Your task to perform on an android device: toggle wifi Image 0: 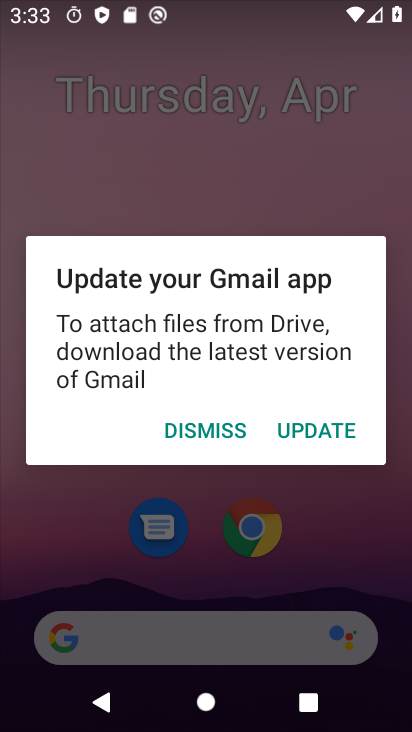
Step 0: press home button
Your task to perform on an android device: toggle wifi Image 1: 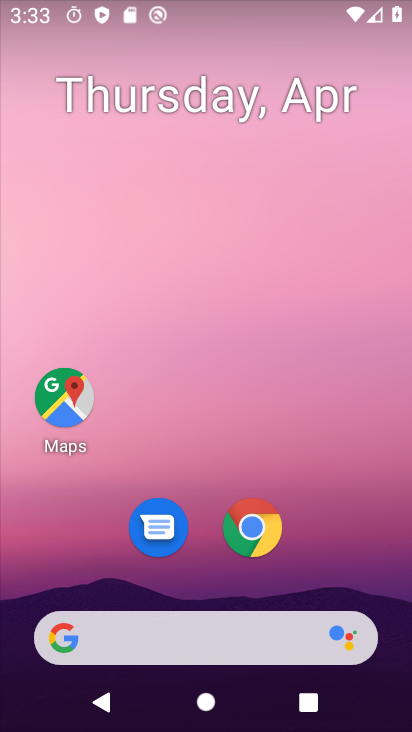
Step 1: drag from (274, 0) to (289, 461)
Your task to perform on an android device: toggle wifi Image 2: 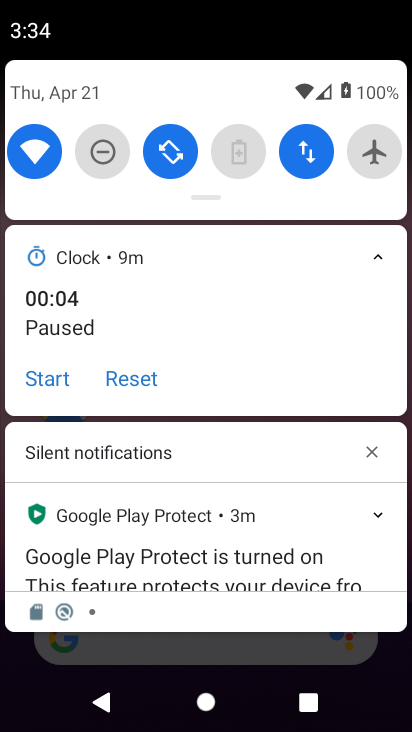
Step 2: click (44, 154)
Your task to perform on an android device: toggle wifi Image 3: 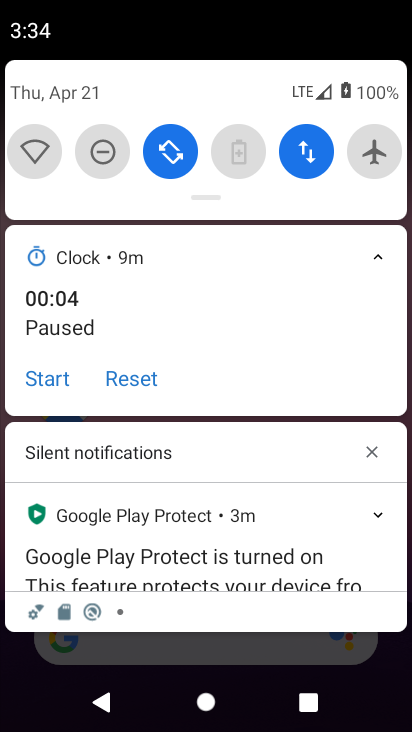
Step 3: task complete